Your task to perform on an android device: Do I have any events tomorrow? Image 0: 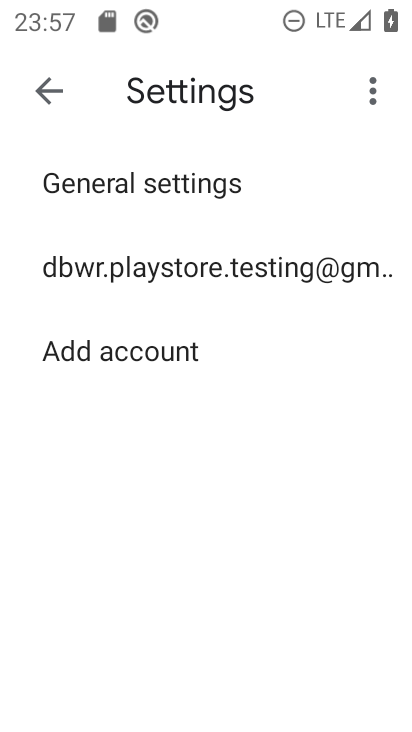
Step 0: press home button
Your task to perform on an android device: Do I have any events tomorrow? Image 1: 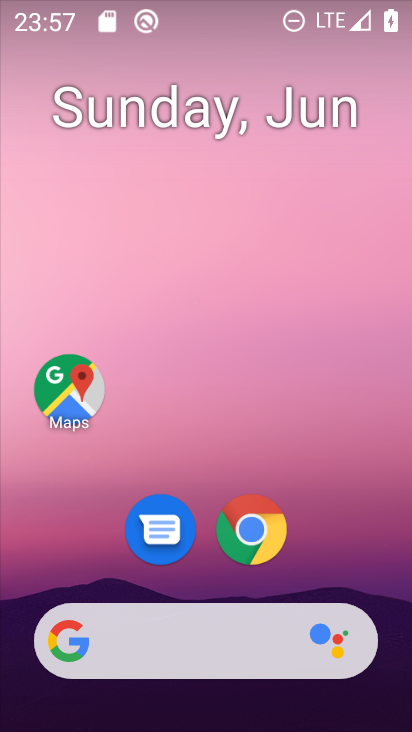
Step 1: drag from (398, 632) to (309, 101)
Your task to perform on an android device: Do I have any events tomorrow? Image 2: 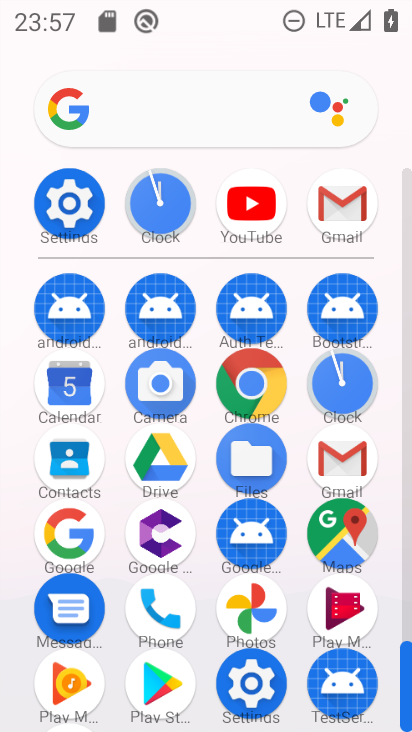
Step 2: click (69, 386)
Your task to perform on an android device: Do I have any events tomorrow? Image 3: 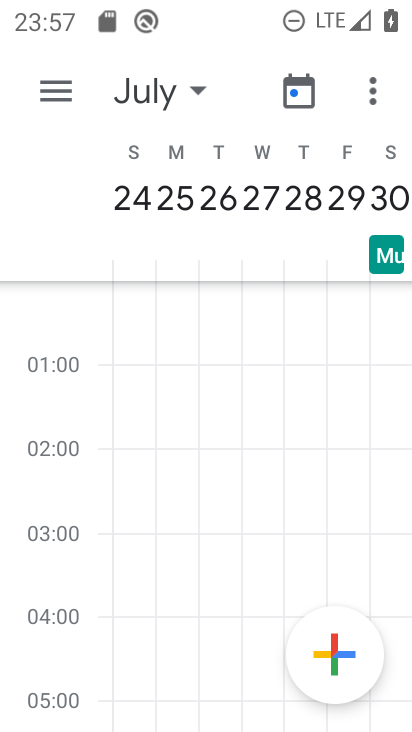
Step 3: click (58, 96)
Your task to perform on an android device: Do I have any events tomorrow? Image 4: 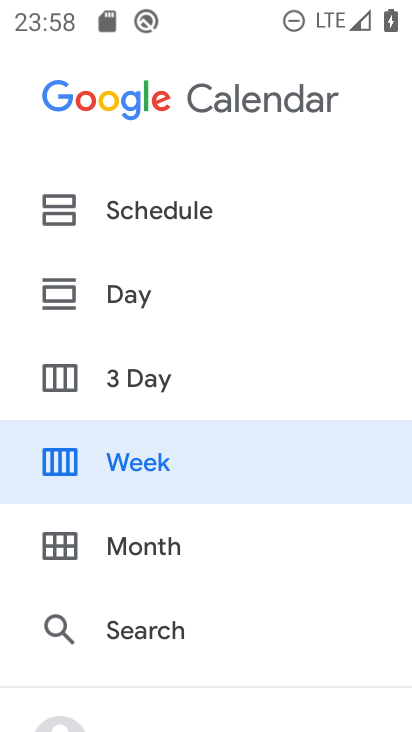
Step 4: click (121, 297)
Your task to perform on an android device: Do I have any events tomorrow? Image 5: 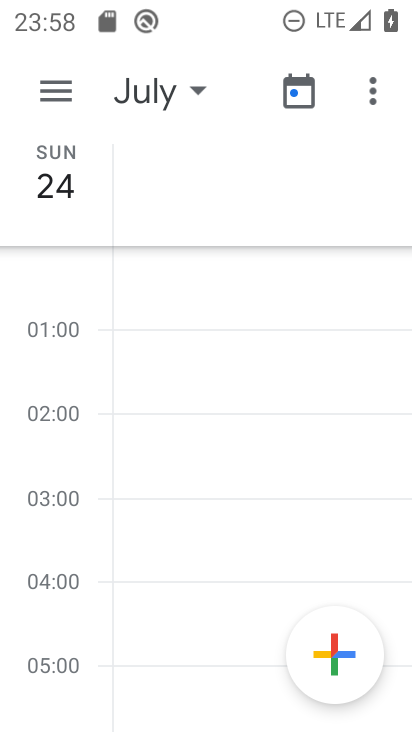
Step 5: click (187, 77)
Your task to perform on an android device: Do I have any events tomorrow? Image 6: 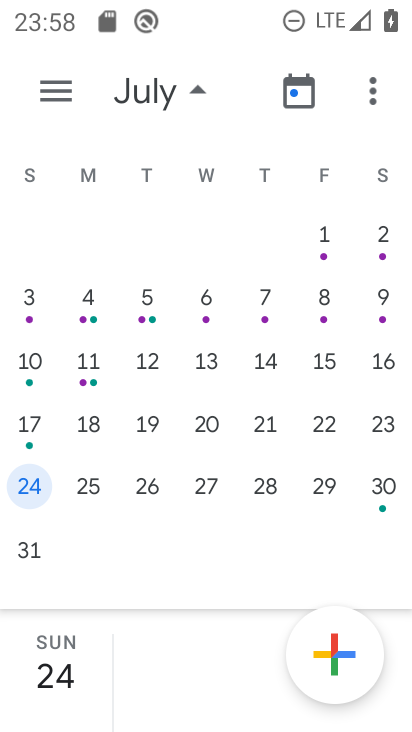
Step 6: drag from (84, 366) to (394, 375)
Your task to perform on an android device: Do I have any events tomorrow? Image 7: 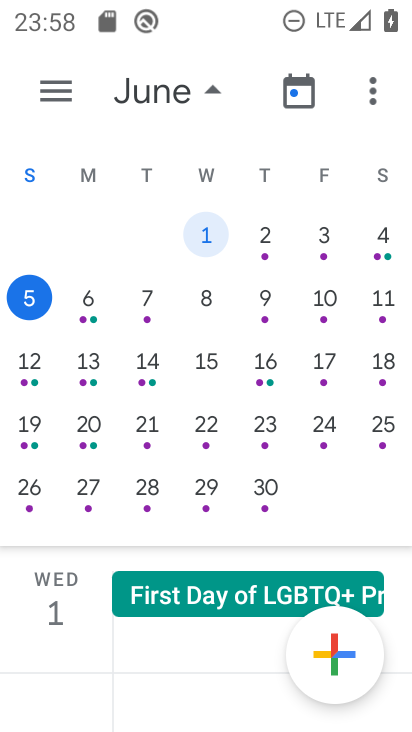
Step 7: click (88, 301)
Your task to perform on an android device: Do I have any events tomorrow? Image 8: 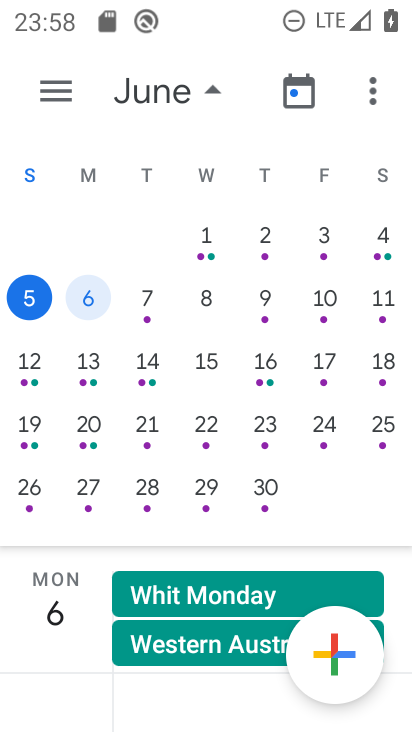
Step 8: drag from (178, 545) to (197, 136)
Your task to perform on an android device: Do I have any events tomorrow? Image 9: 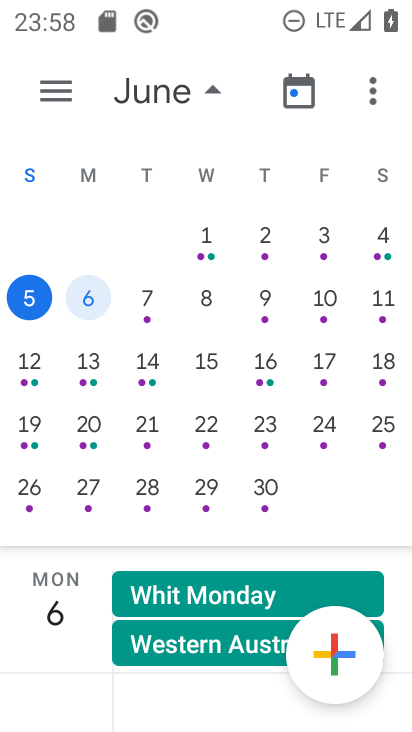
Step 9: click (212, 90)
Your task to perform on an android device: Do I have any events tomorrow? Image 10: 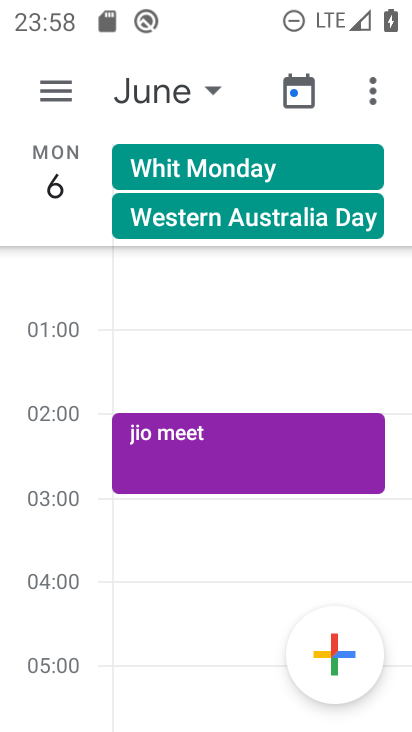
Step 10: task complete